Your task to perform on an android device: turn off sleep mode Image 0: 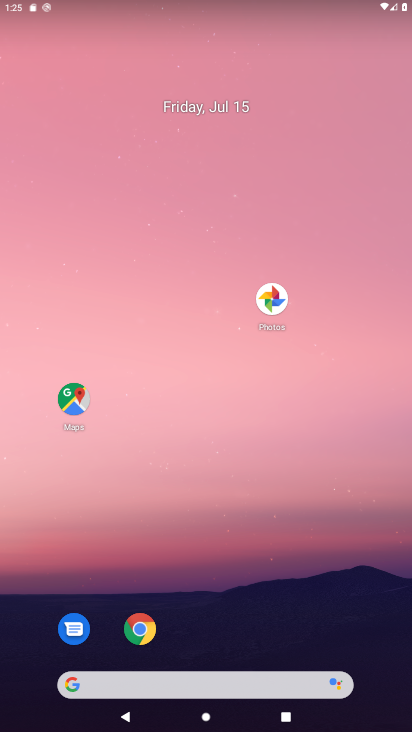
Step 0: drag from (154, 637) to (159, 248)
Your task to perform on an android device: turn off sleep mode Image 1: 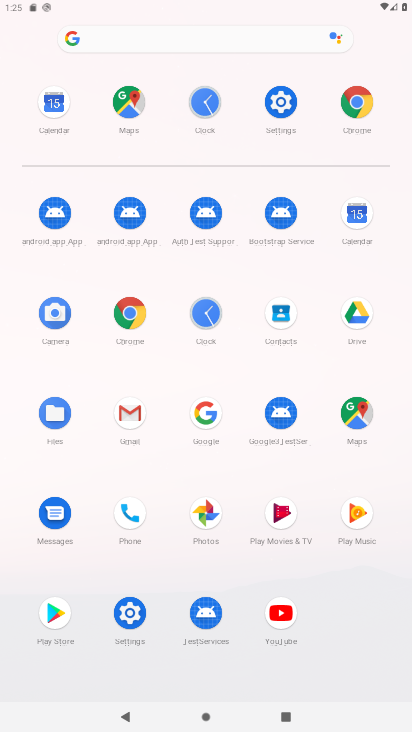
Step 1: click (274, 98)
Your task to perform on an android device: turn off sleep mode Image 2: 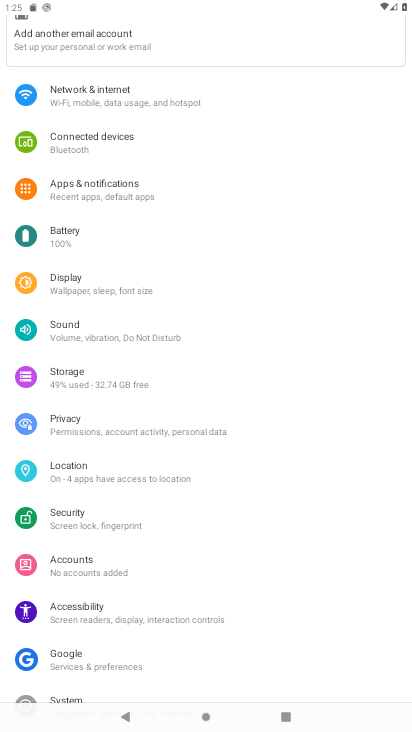
Step 2: task complete